Your task to perform on an android device: Add bose soundsport free to the cart on target.com, then select checkout. Image 0: 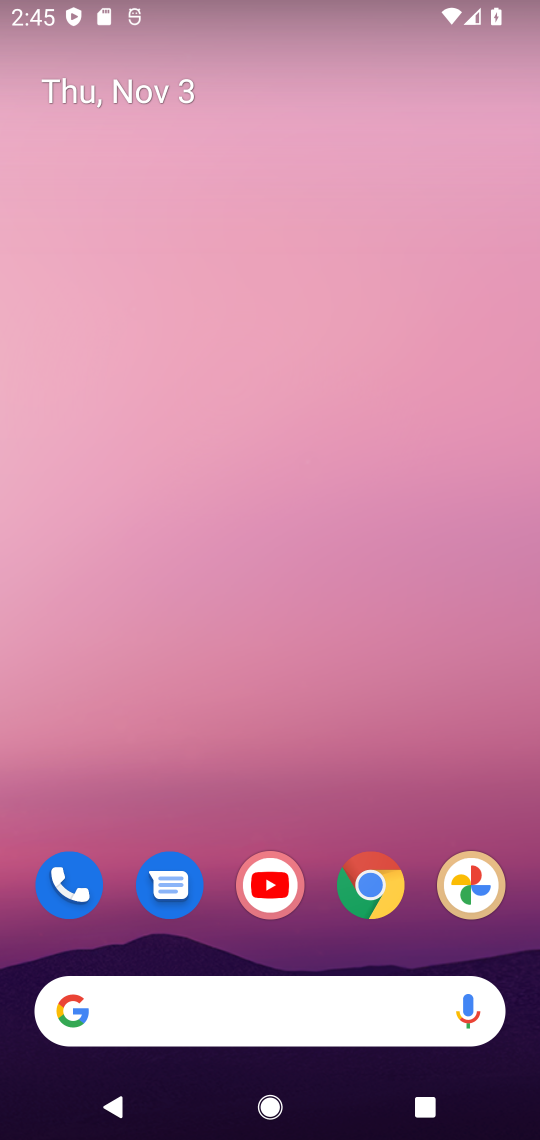
Step 0: click (370, 890)
Your task to perform on an android device: Add bose soundsport free to the cart on target.com, then select checkout. Image 1: 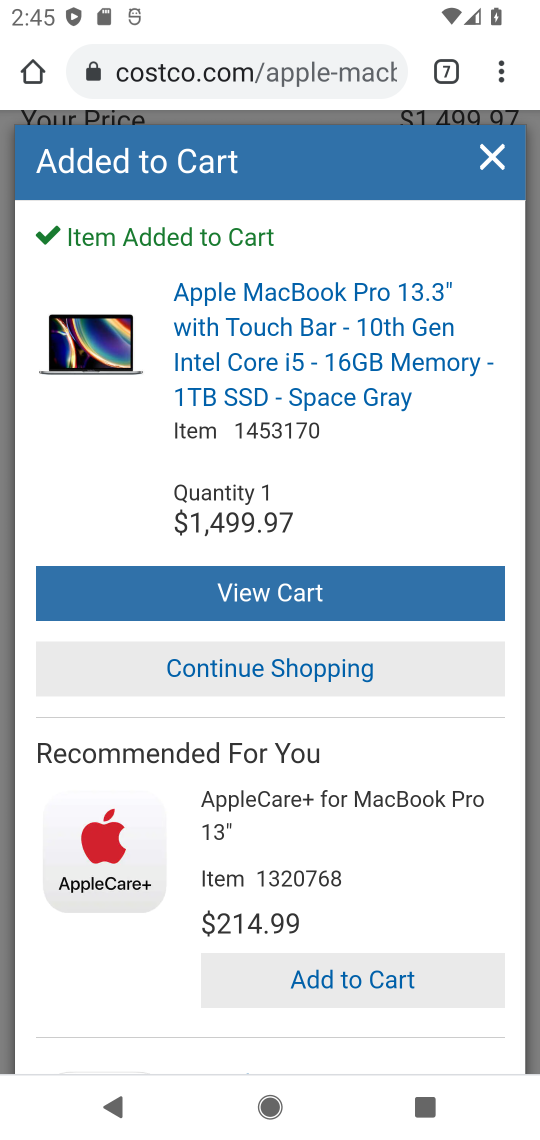
Step 1: click (504, 76)
Your task to perform on an android device: Add bose soundsport free to the cart on target.com, then select checkout. Image 2: 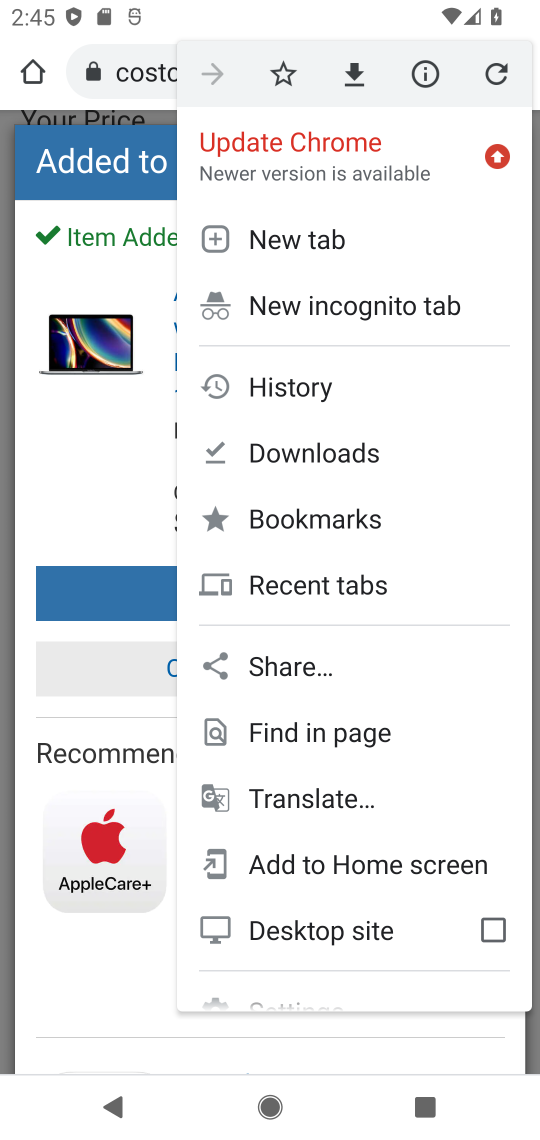
Step 2: click (292, 236)
Your task to perform on an android device: Add bose soundsport free to the cart on target.com, then select checkout. Image 3: 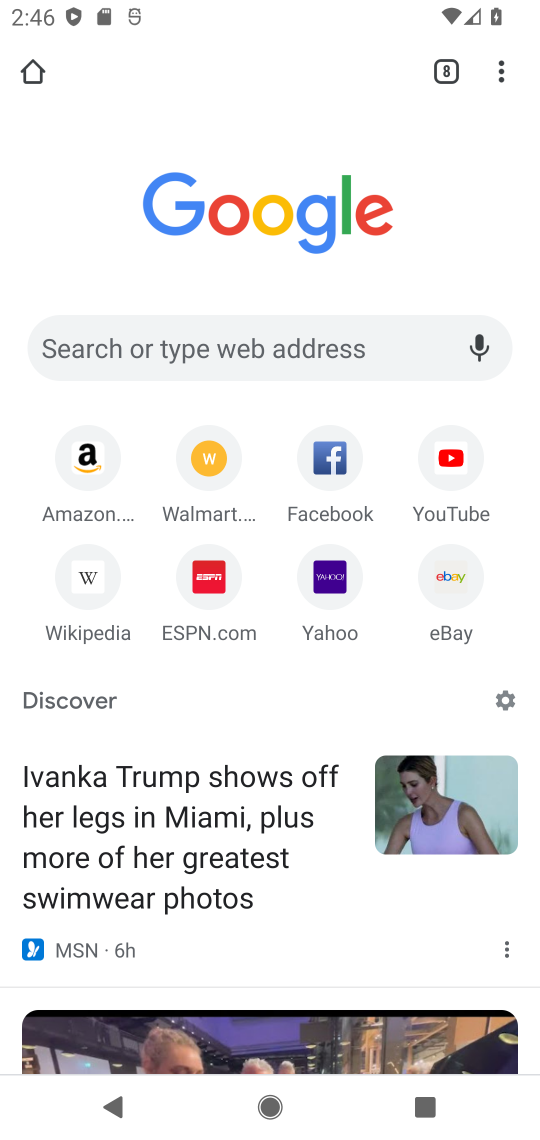
Step 3: click (236, 349)
Your task to perform on an android device: Add bose soundsport free to the cart on target.com, then select checkout. Image 4: 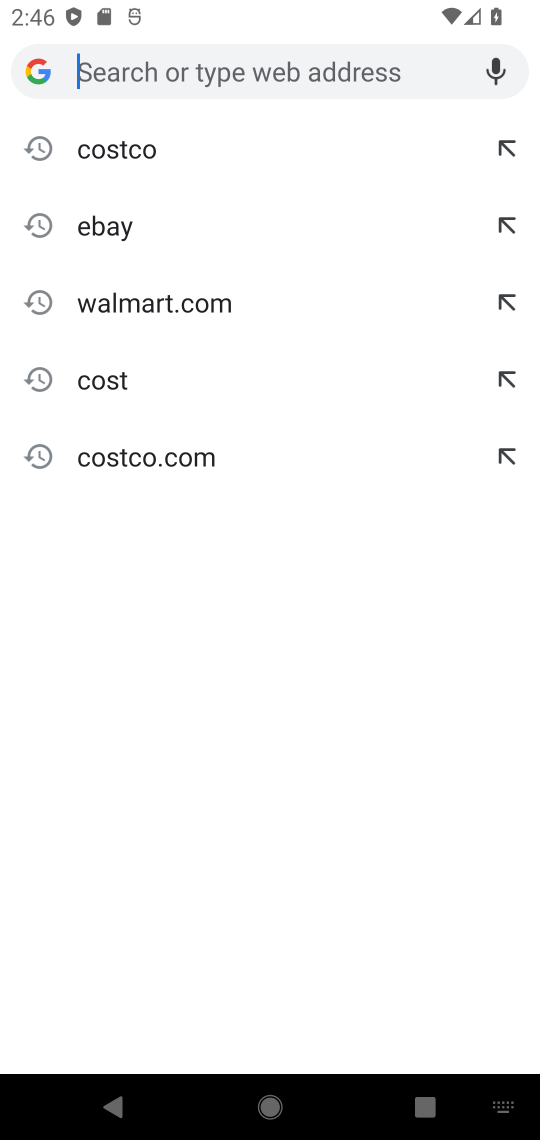
Step 4: type "target.com"
Your task to perform on an android device: Add bose soundsport free to the cart on target.com, then select checkout. Image 5: 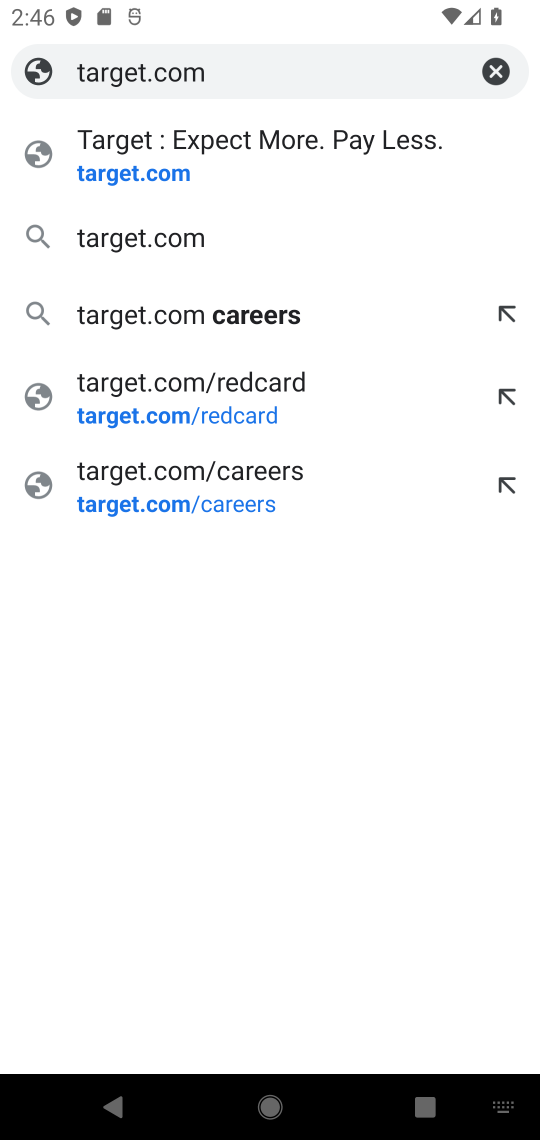
Step 5: click (164, 233)
Your task to perform on an android device: Add bose soundsport free to the cart on target.com, then select checkout. Image 6: 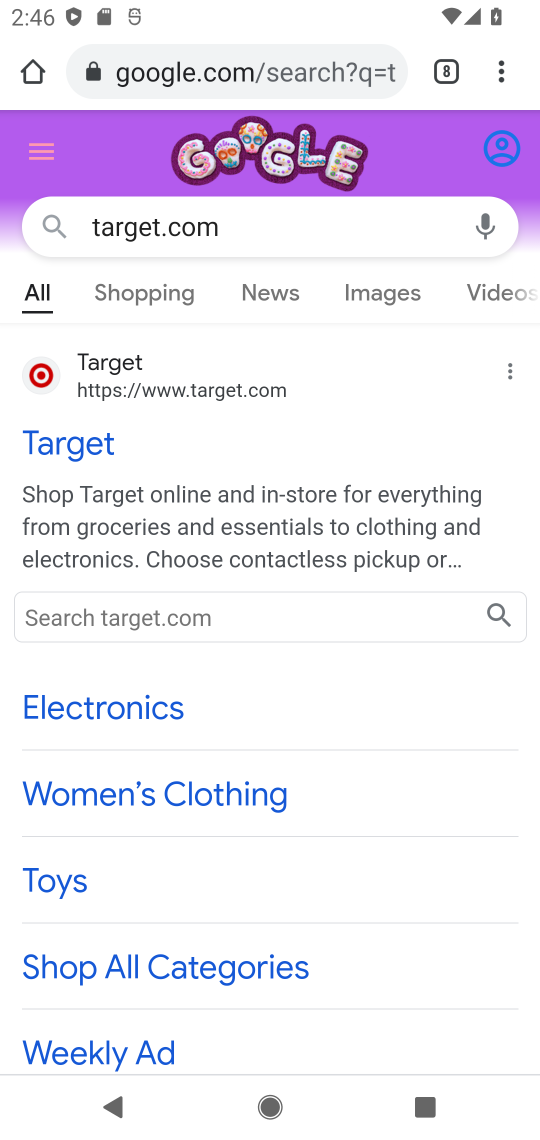
Step 6: click (98, 447)
Your task to perform on an android device: Add bose soundsport free to the cart on target.com, then select checkout. Image 7: 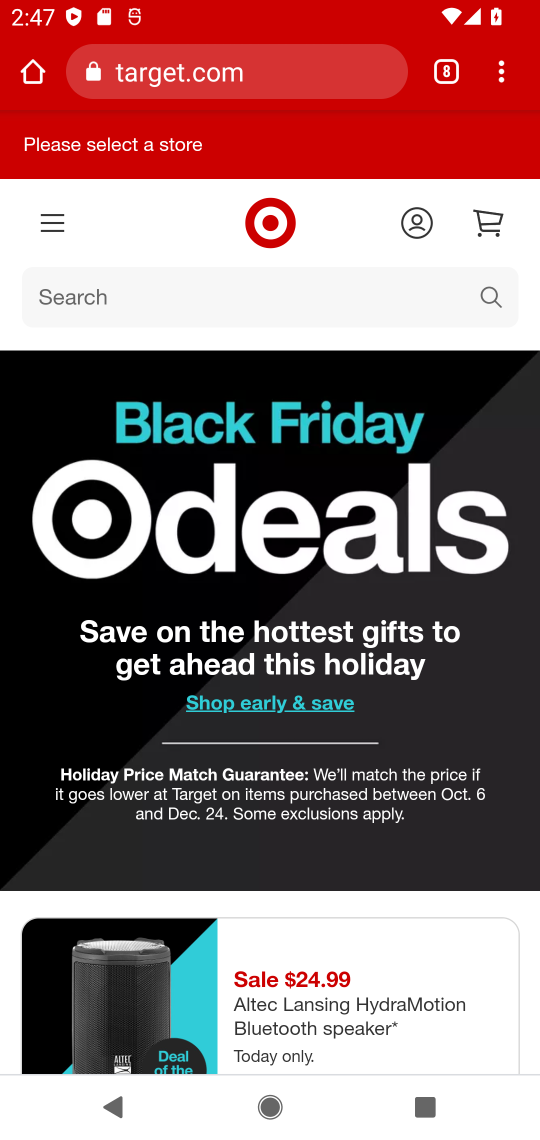
Step 7: click (208, 302)
Your task to perform on an android device: Add bose soundsport free to the cart on target.com, then select checkout. Image 8: 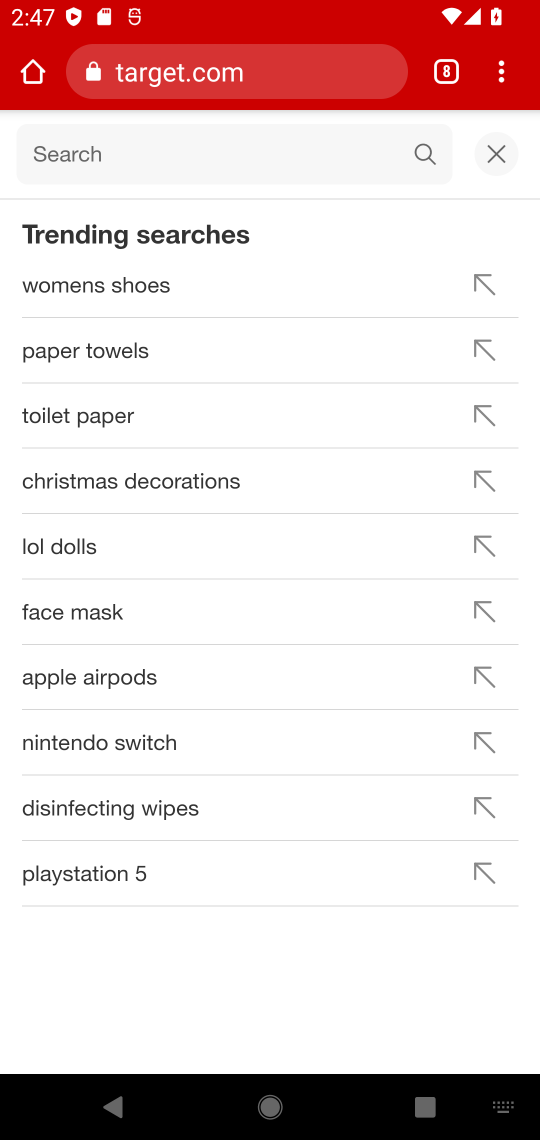
Step 8: type "bose soundsport"
Your task to perform on an android device: Add bose soundsport free to the cart on target.com, then select checkout. Image 9: 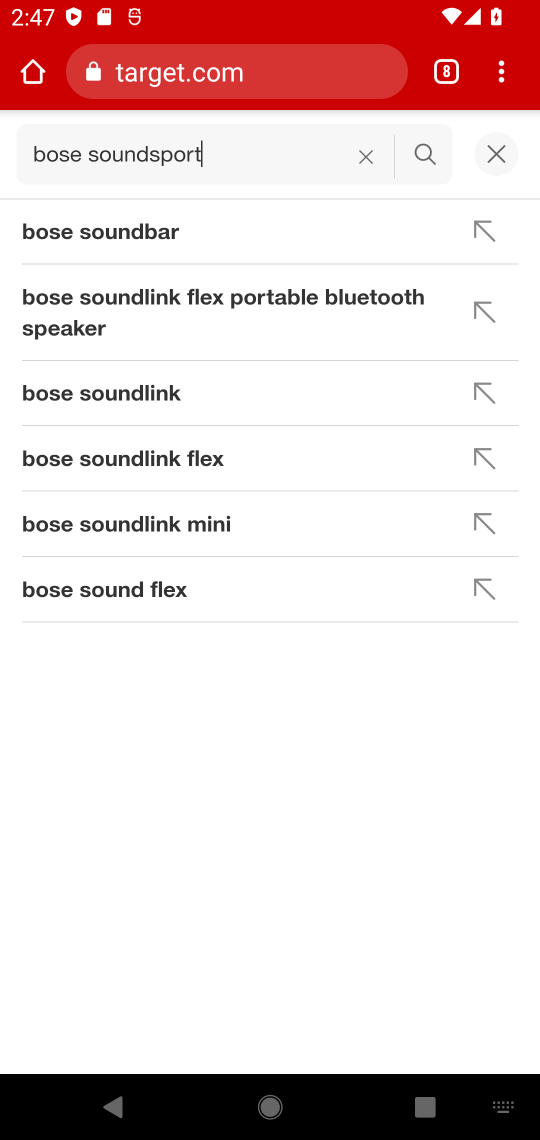
Step 9: click (119, 238)
Your task to perform on an android device: Add bose soundsport free to the cart on target.com, then select checkout. Image 10: 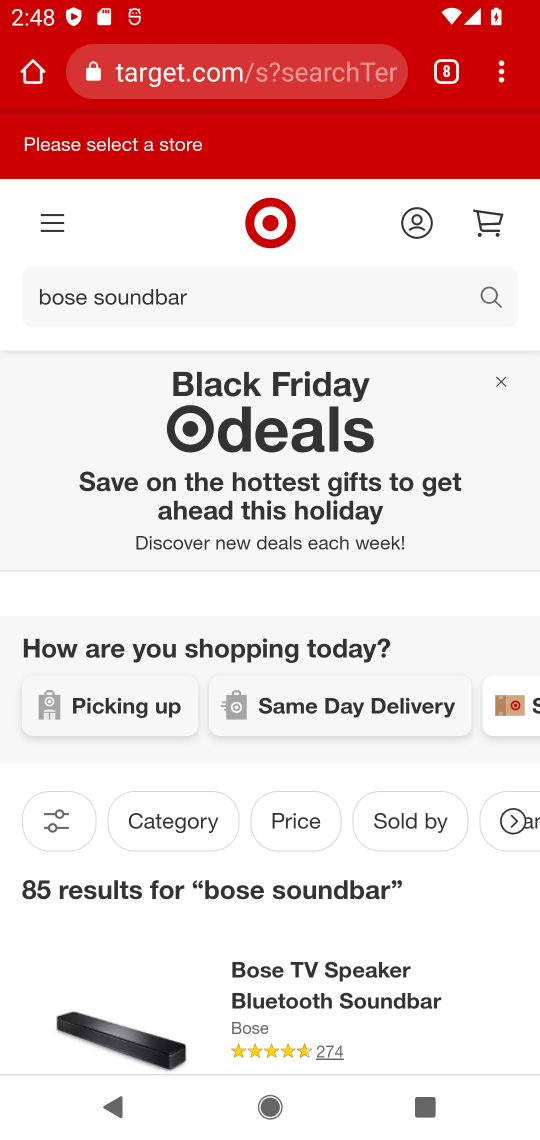
Step 10: drag from (329, 942) to (307, 498)
Your task to perform on an android device: Add bose soundsport free to the cart on target.com, then select checkout. Image 11: 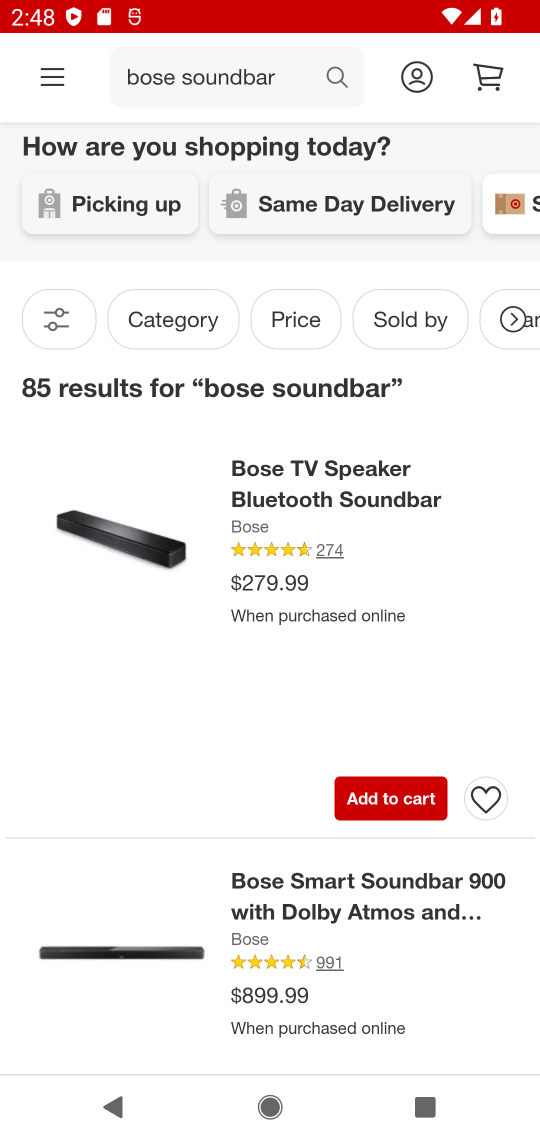
Step 11: drag from (334, 980) to (400, 539)
Your task to perform on an android device: Add bose soundsport free to the cart on target.com, then select checkout. Image 12: 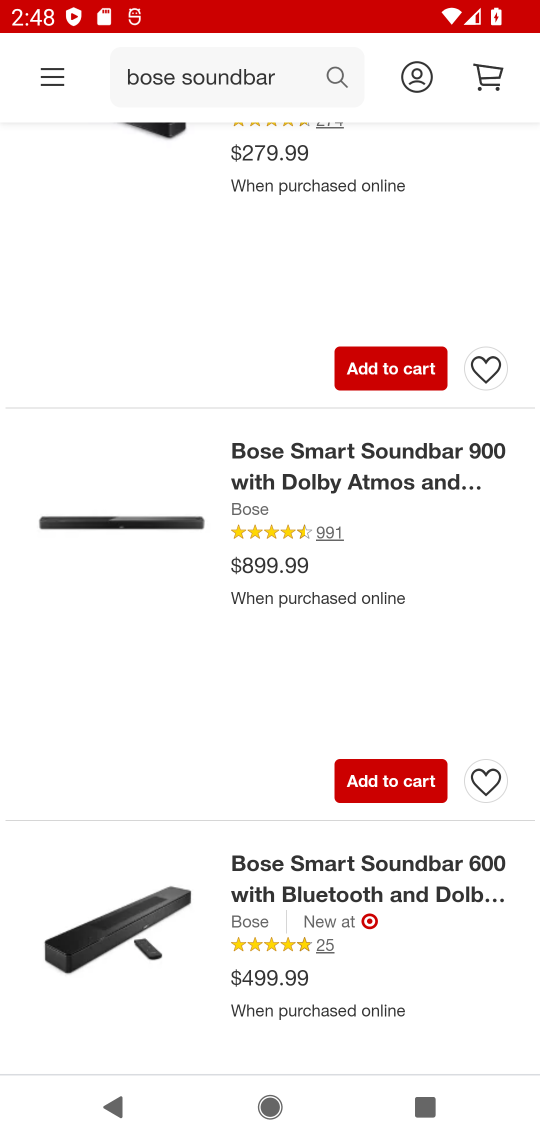
Step 12: click (377, 780)
Your task to perform on an android device: Add bose soundsport free to the cart on target.com, then select checkout. Image 13: 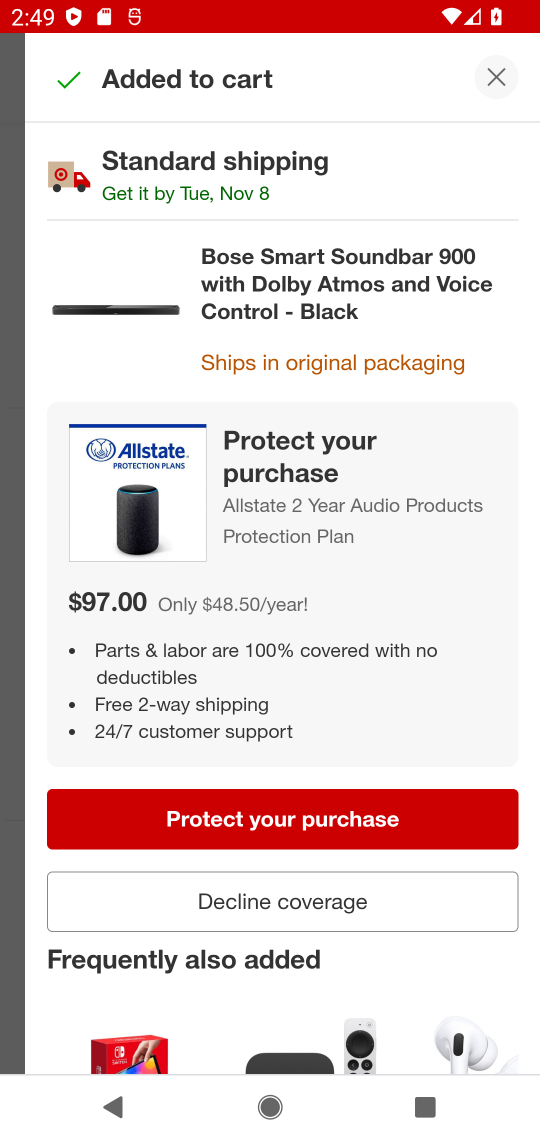
Step 13: drag from (316, 741) to (306, 490)
Your task to perform on an android device: Add bose soundsport free to the cart on target.com, then select checkout. Image 14: 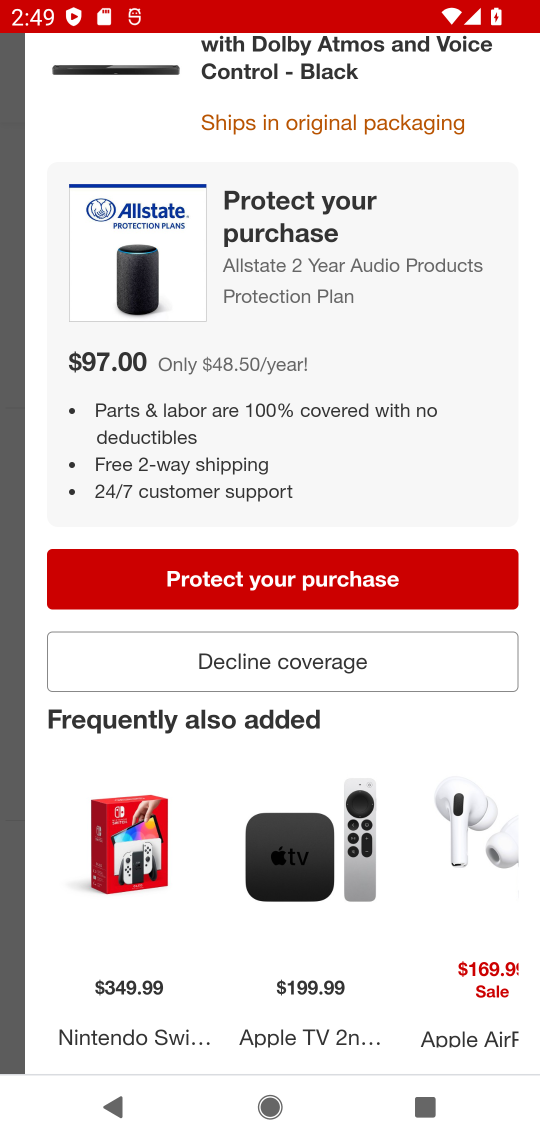
Step 14: click (415, 723)
Your task to perform on an android device: Add bose soundsport free to the cart on target.com, then select checkout. Image 15: 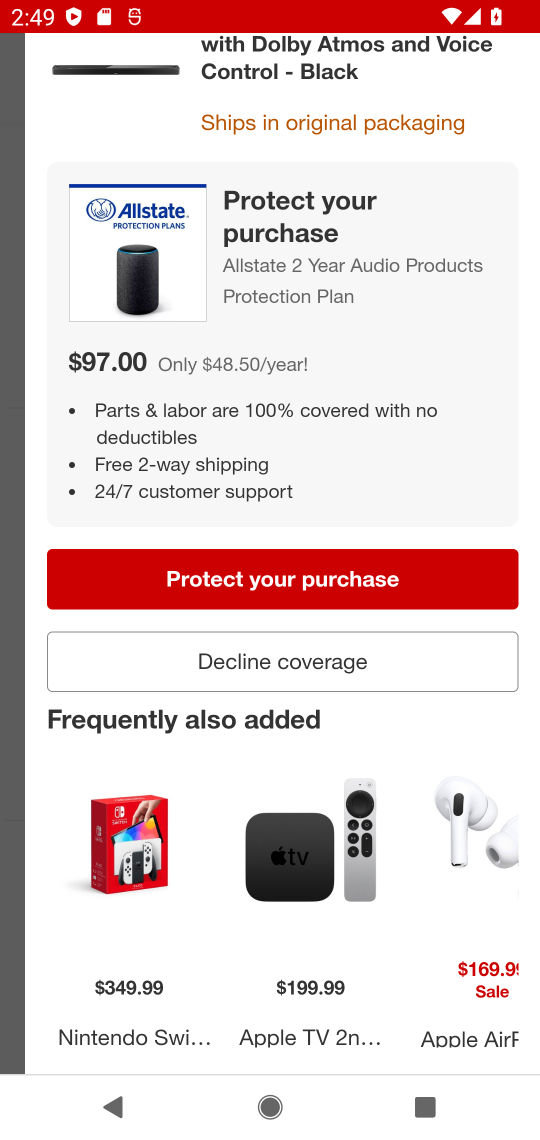
Step 15: drag from (316, 68) to (304, 503)
Your task to perform on an android device: Add bose soundsport free to the cart on target.com, then select checkout. Image 16: 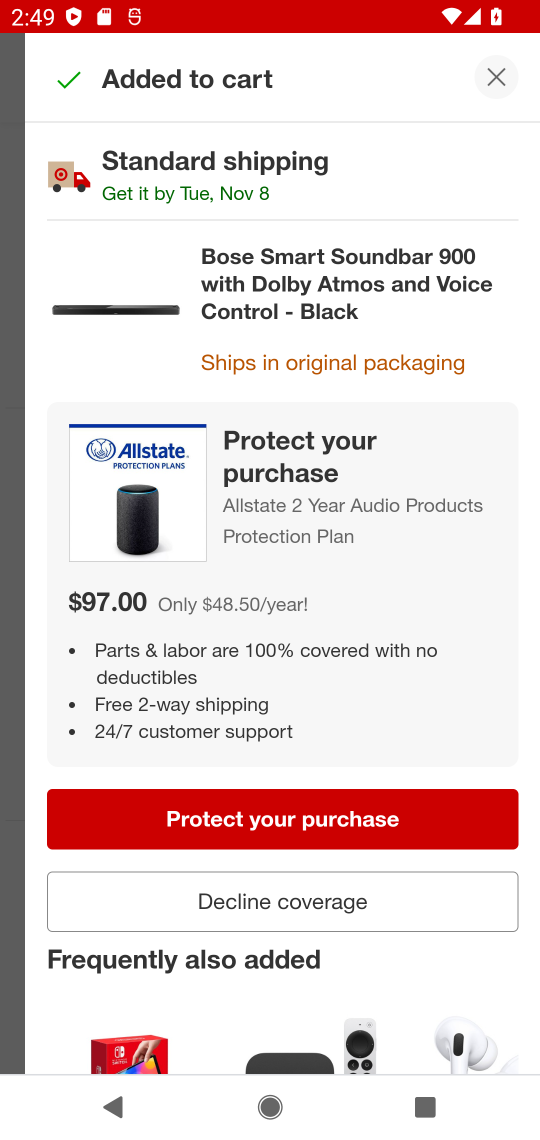
Step 16: click (487, 77)
Your task to perform on an android device: Add bose soundsport free to the cart on target.com, then select checkout. Image 17: 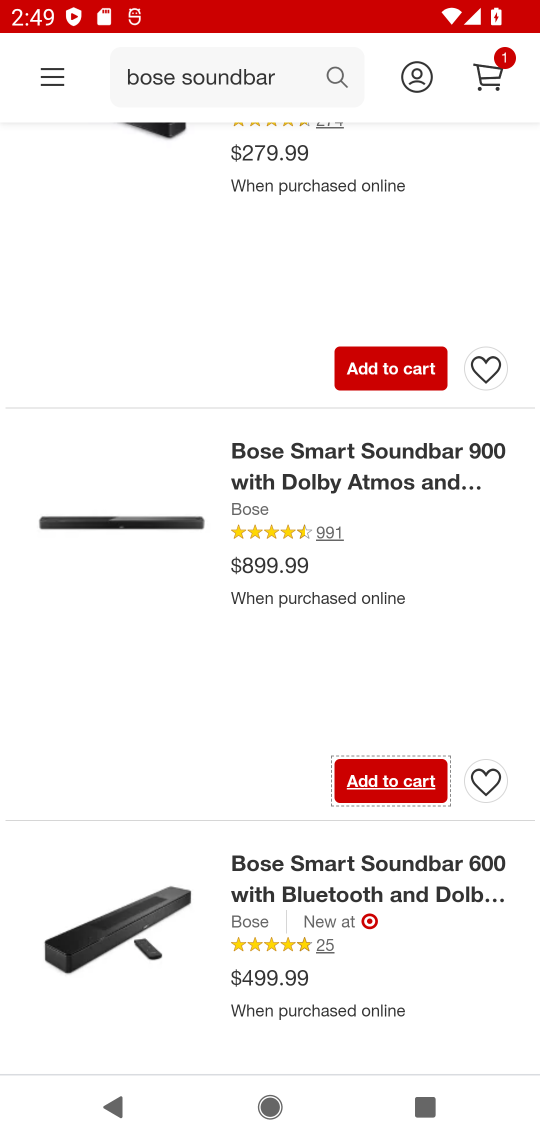
Step 17: click (492, 63)
Your task to perform on an android device: Add bose soundsport free to the cart on target.com, then select checkout. Image 18: 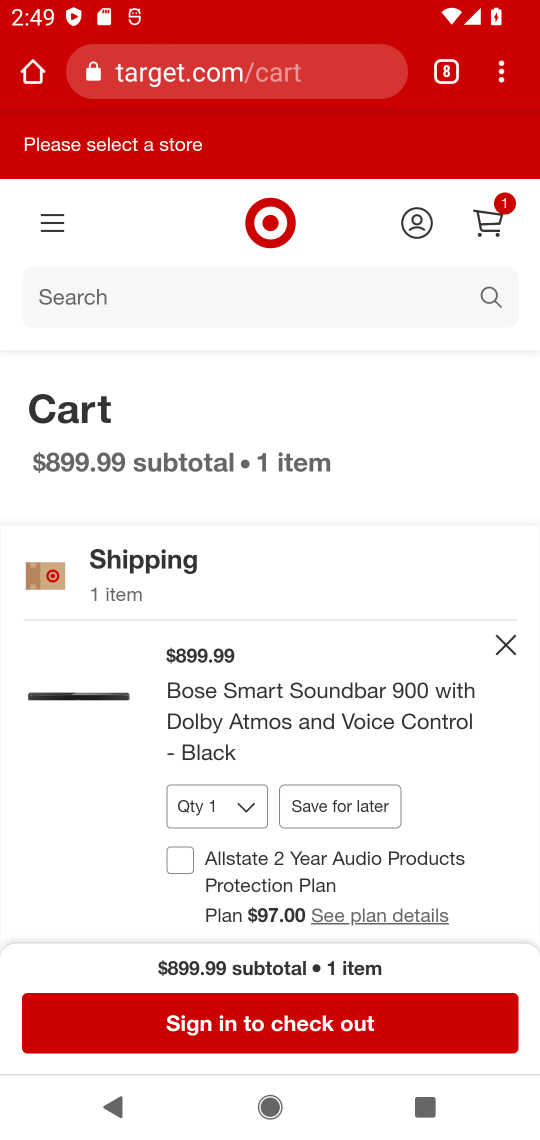
Step 18: task complete